Your task to perform on an android device: open a new tab in the chrome app Image 0: 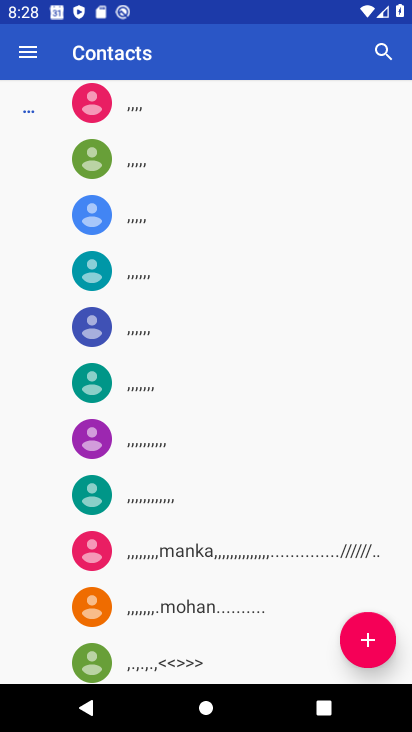
Step 0: press home button
Your task to perform on an android device: open a new tab in the chrome app Image 1: 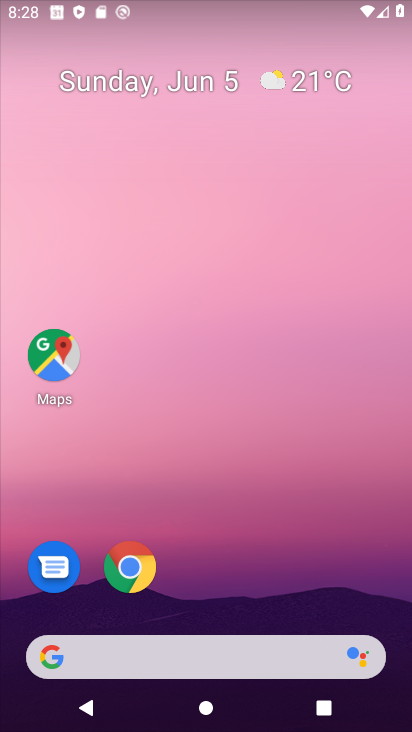
Step 1: click (131, 580)
Your task to perform on an android device: open a new tab in the chrome app Image 2: 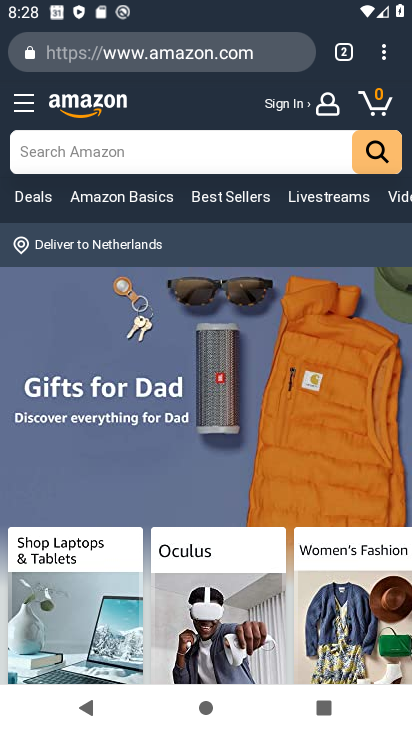
Step 2: click (339, 64)
Your task to perform on an android device: open a new tab in the chrome app Image 3: 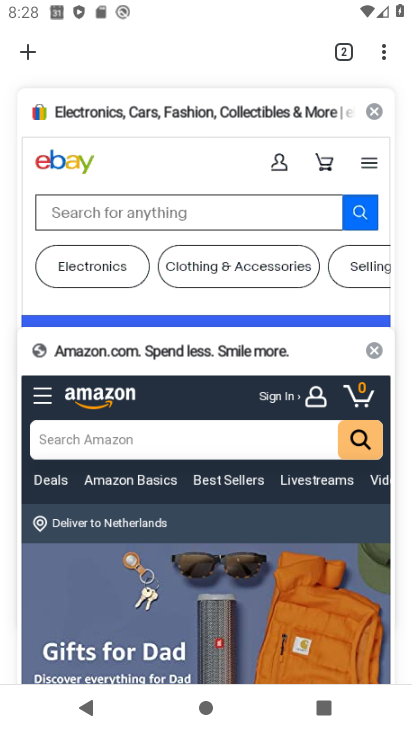
Step 3: click (375, 114)
Your task to perform on an android device: open a new tab in the chrome app Image 4: 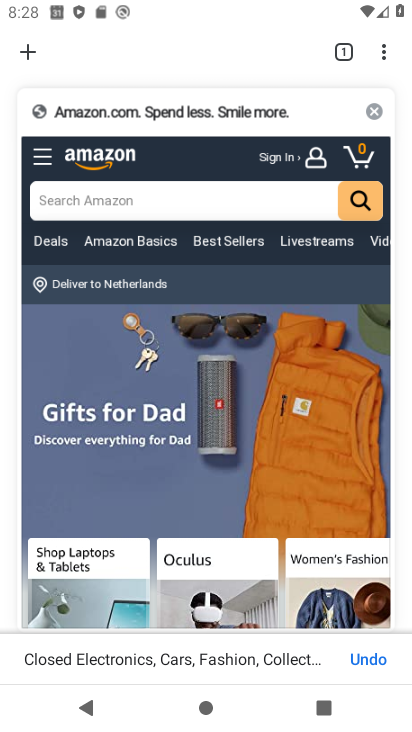
Step 4: click (373, 117)
Your task to perform on an android device: open a new tab in the chrome app Image 5: 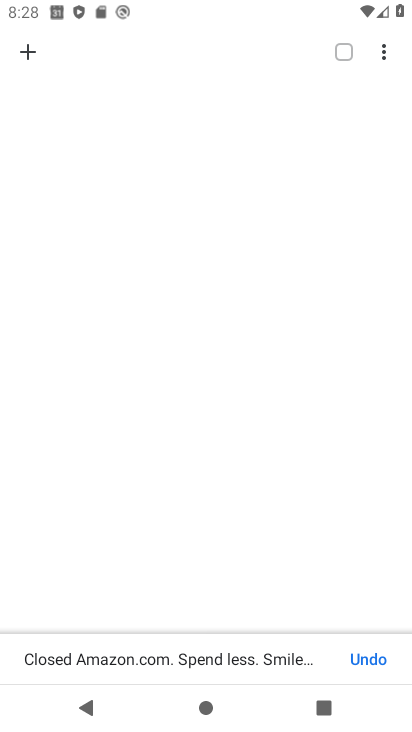
Step 5: click (385, 53)
Your task to perform on an android device: open a new tab in the chrome app Image 6: 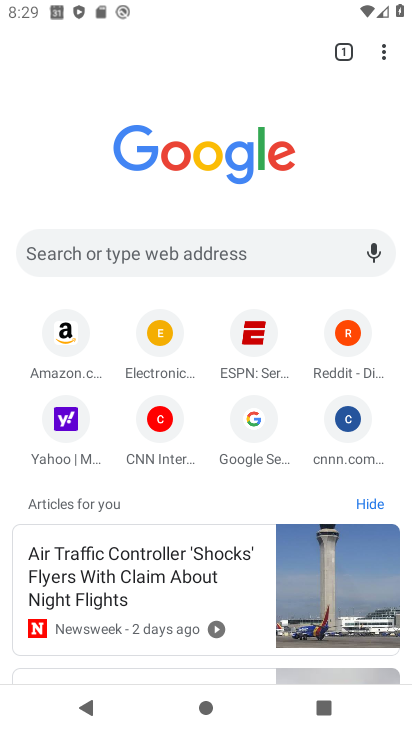
Step 6: click (381, 55)
Your task to perform on an android device: open a new tab in the chrome app Image 7: 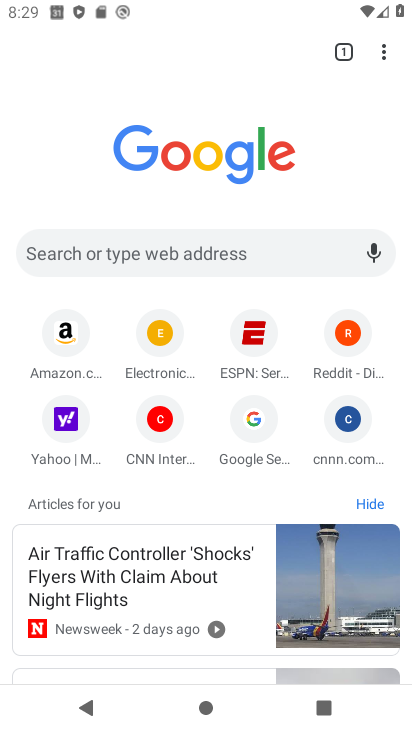
Step 7: click (391, 50)
Your task to perform on an android device: open a new tab in the chrome app Image 8: 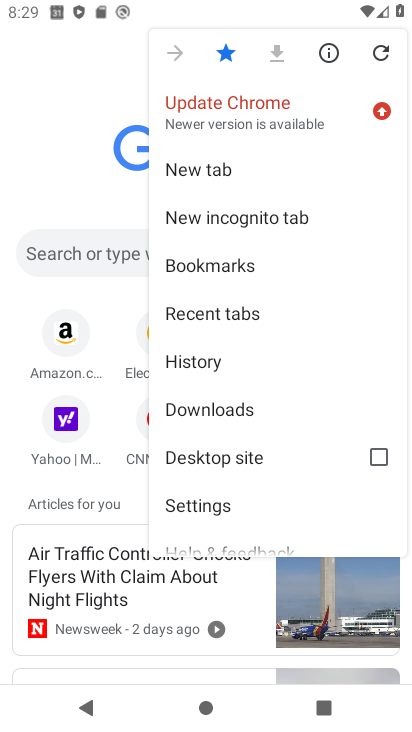
Step 8: click (218, 172)
Your task to perform on an android device: open a new tab in the chrome app Image 9: 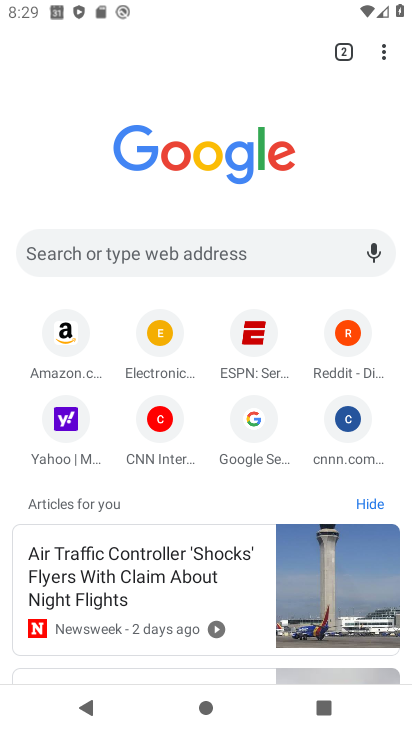
Step 9: task complete